Your task to perform on an android device: check storage Image 0: 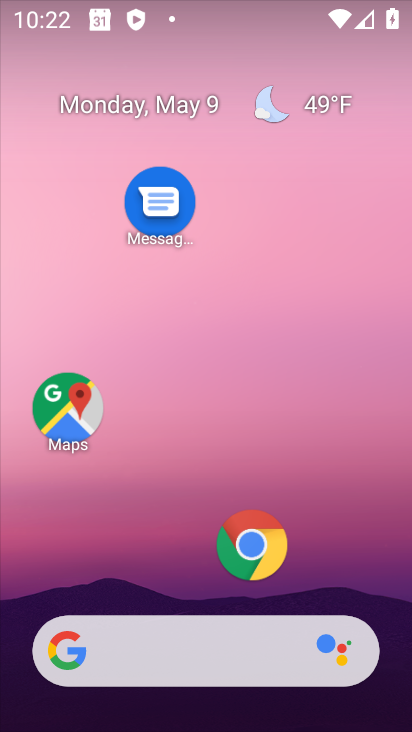
Step 0: drag from (335, 569) to (364, 10)
Your task to perform on an android device: check storage Image 1: 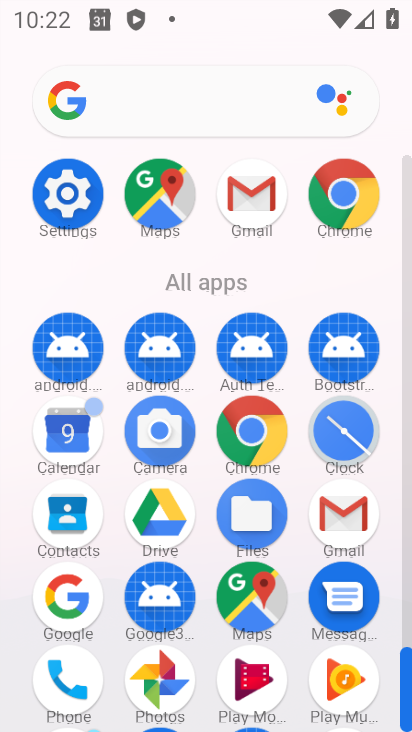
Step 1: click (65, 193)
Your task to perform on an android device: check storage Image 2: 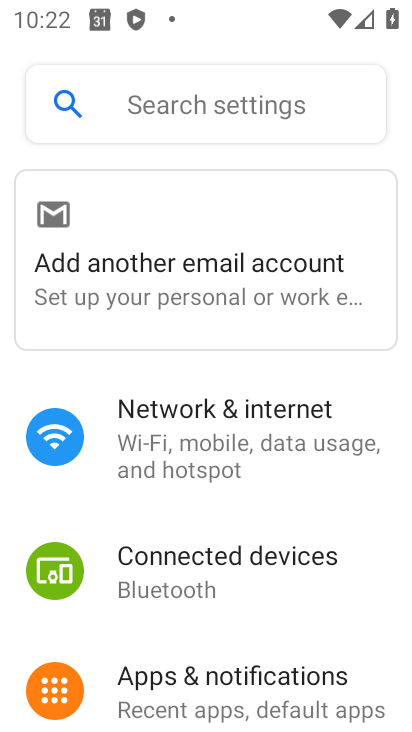
Step 2: drag from (229, 648) to (245, 365)
Your task to perform on an android device: check storage Image 3: 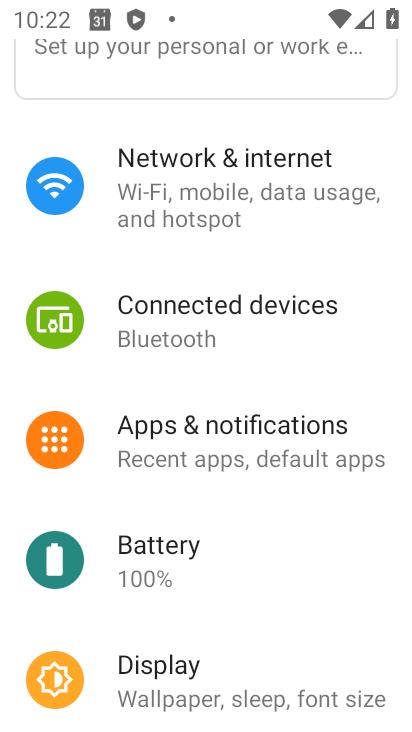
Step 3: drag from (177, 617) to (202, 441)
Your task to perform on an android device: check storage Image 4: 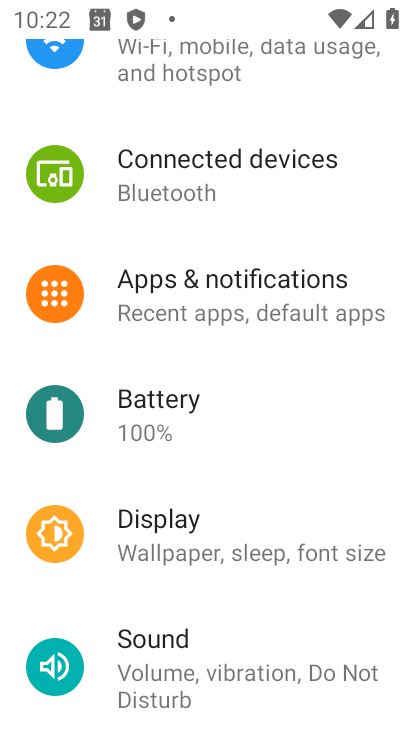
Step 4: drag from (174, 688) to (191, 349)
Your task to perform on an android device: check storage Image 5: 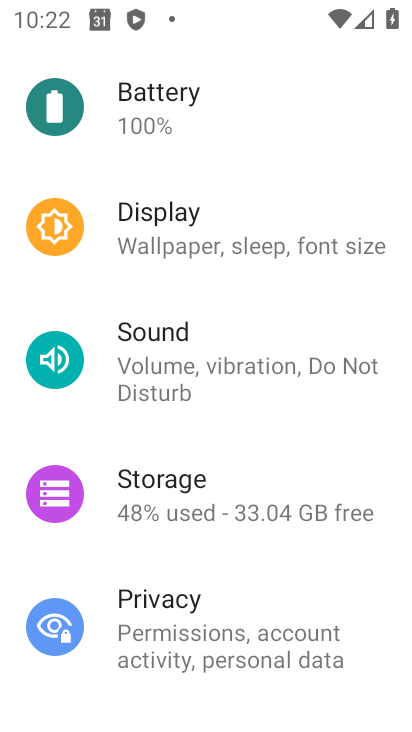
Step 5: click (211, 482)
Your task to perform on an android device: check storage Image 6: 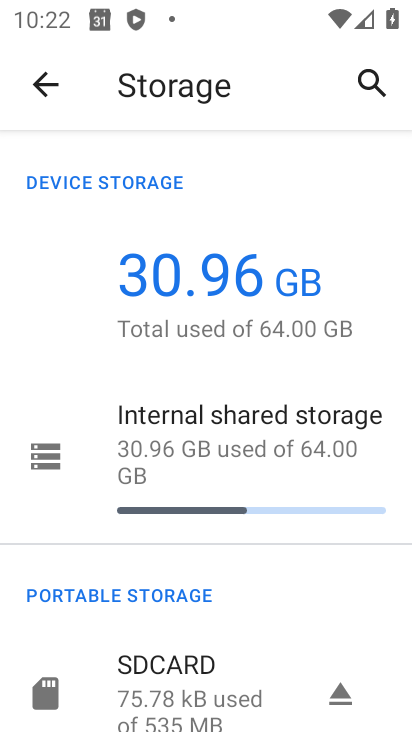
Step 6: task complete